Your task to perform on an android device: Open the calendar app, open the side menu, and click the "Day" option Image 0: 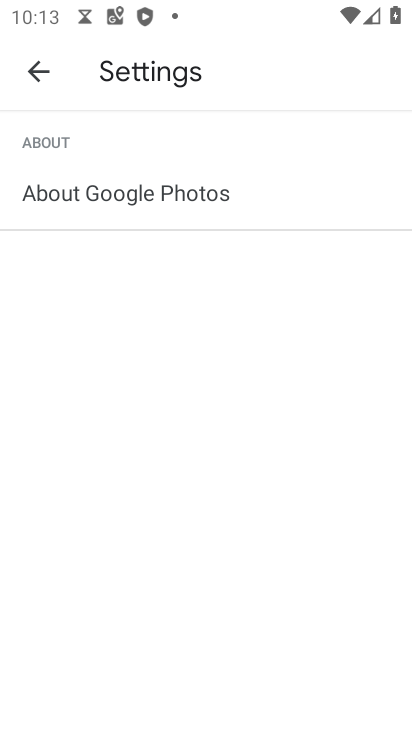
Step 0: press home button
Your task to perform on an android device: Open the calendar app, open the side menu, and click the "Day" option Image 1: 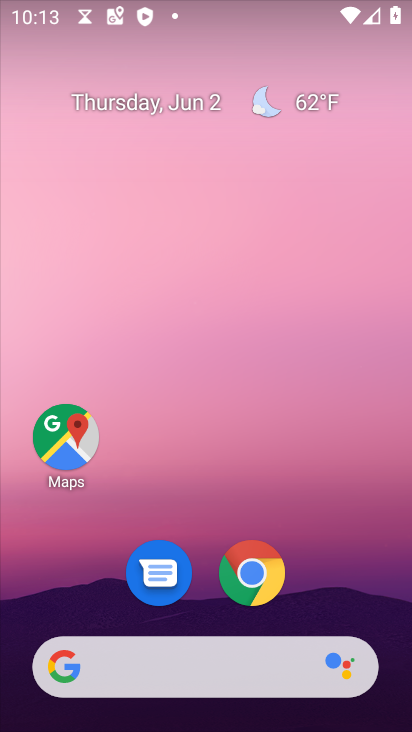
Step 1: drag from (330, 579) to (252, 162)
Your task to perform on an android device: Open the calendar app, open the side menu, and click the "Day" option Image 2: 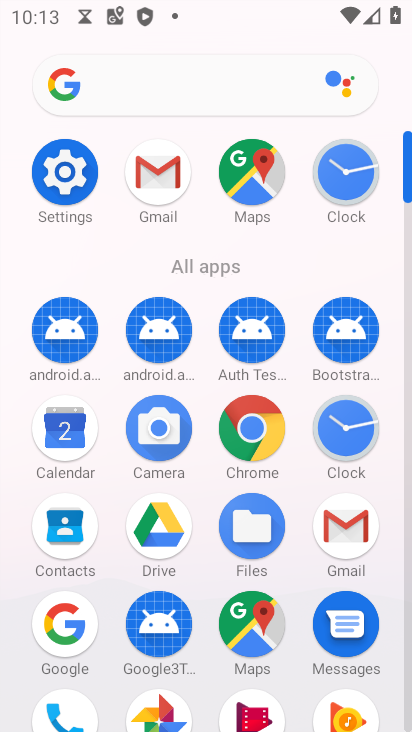
Step 2: click (65, 434)
Your task to perform on an android device: Open the calendar app, open the side menu, and click the "Day" option Image 3: 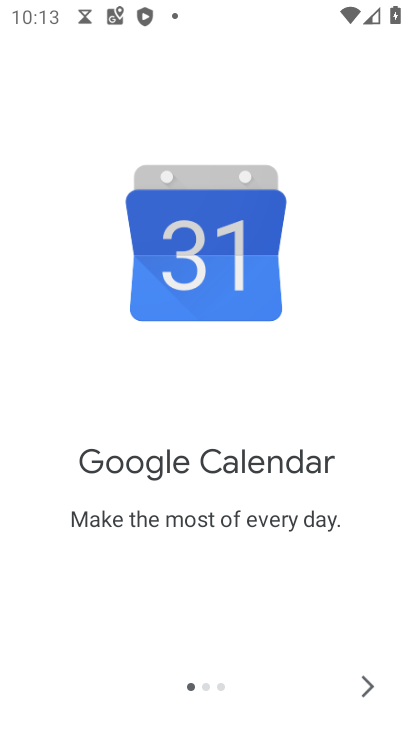
Step 3: click (368, 681)
Your task to perform on an android device: Open the calendar app, open the side menu, and click the "Day" option Image 4: 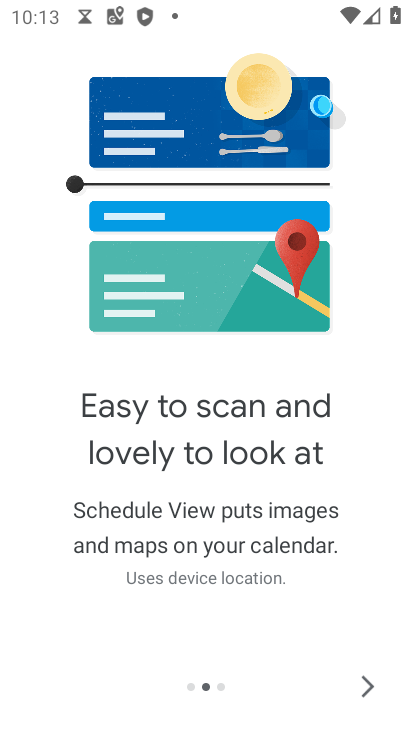
Step 4: click (368, 681)
Your task to perform on an android device: Open the calendar app, open the side menu, and click the "Day" option Image 5: 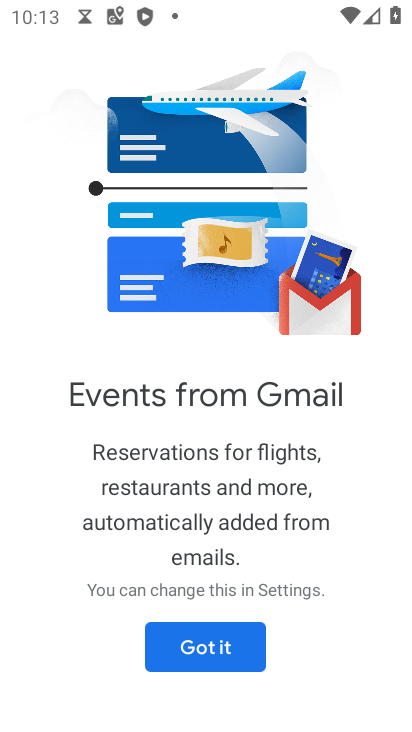
Step 5: click (205, 646)
Your task to perform on an android device: Open the calendar app, open the side menu, and click the "Day" option Image 6: 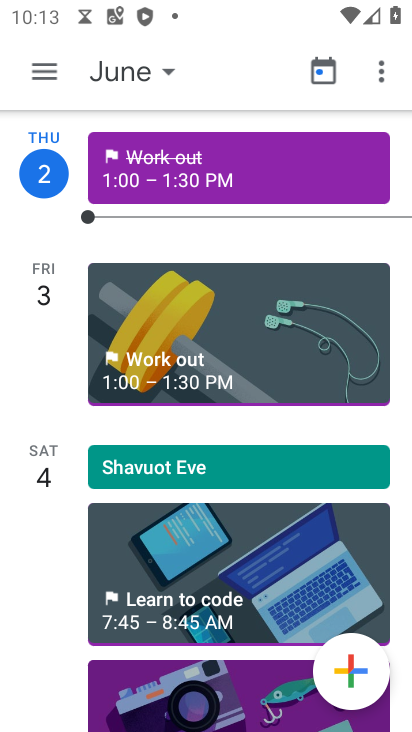
Step 6: click (49, 72)
Your task to perform on an android device: Open the calendar app, open the side menu, and click the "Day" option Image 7: 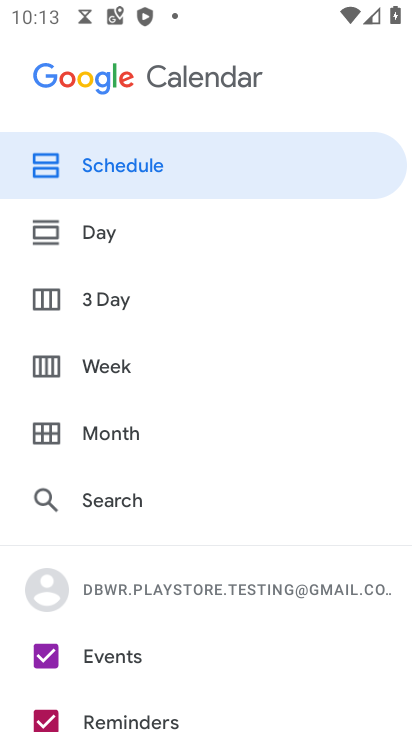
Step 7: click (97, 242)
Your task to perform on an android device: Open the calendar app, open the side menu, and click the "Day" option Image 8: 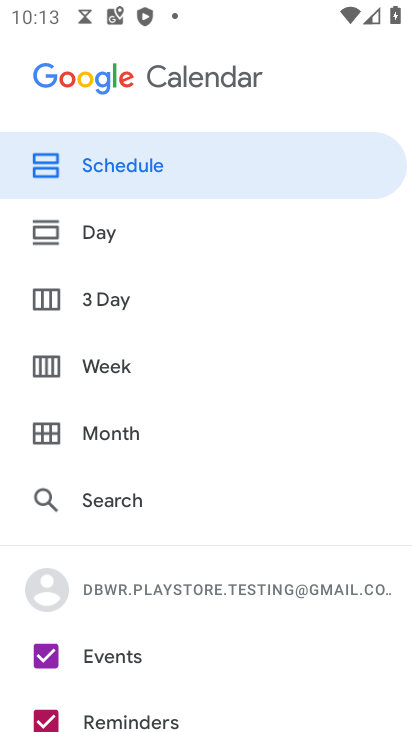
Step 8: click (57, 244)
Your task to perform on an android device: Open the calendar app, open the side menu, and click the "Day" option Image 9: 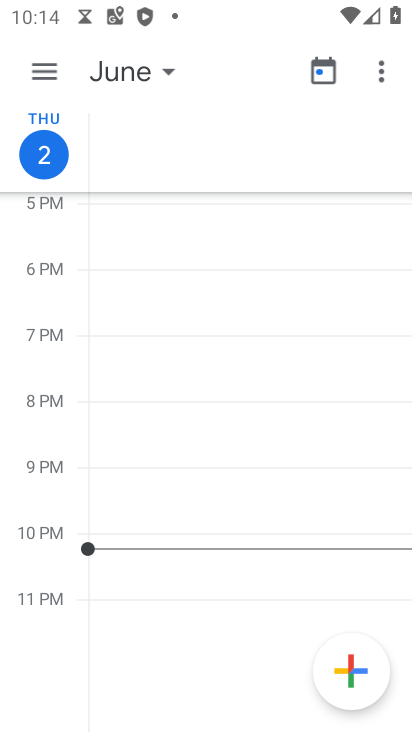
Step 9: task complete